Your task to perform on an android device: Search for pizza restaurants on Maps Image 0: 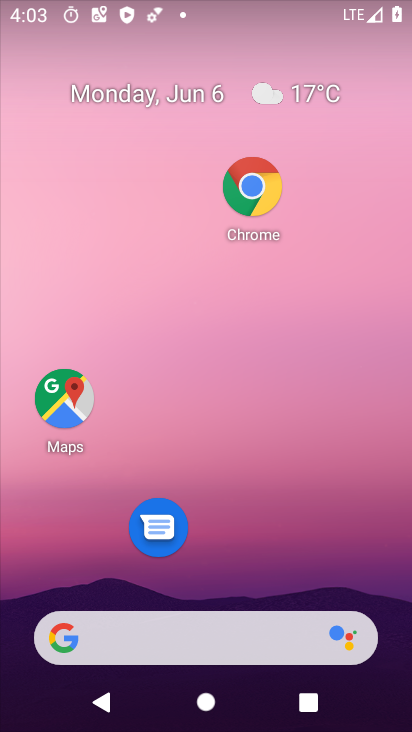
Step 0: click (62, 393)
Your task to perform on an android device: Search for pizza restaurants on Maps Image 1: 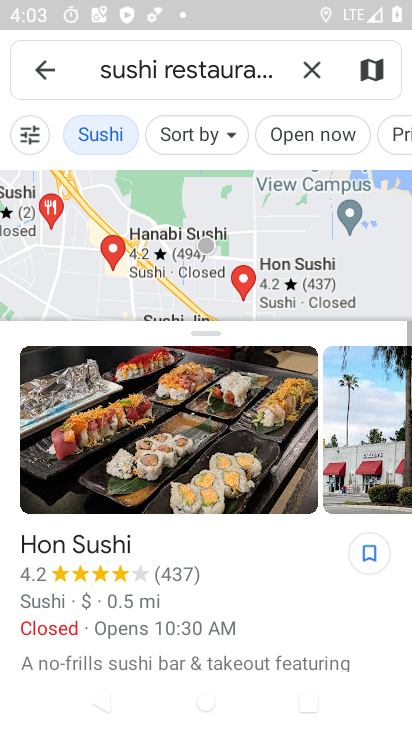
Step 1: click (213, 102)
Your task to perform on an android device: Search for pizza restaurants on Maps Image 2: 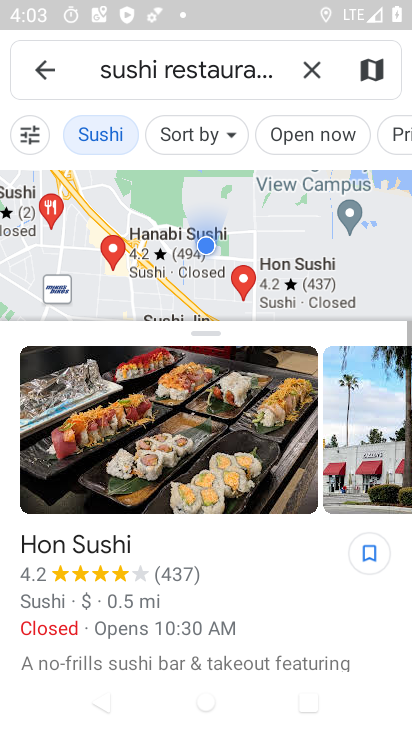
Step 2: click (206, 65)
Your task to perform on an android device: Search for pizza restaurants on Maps Image 3: 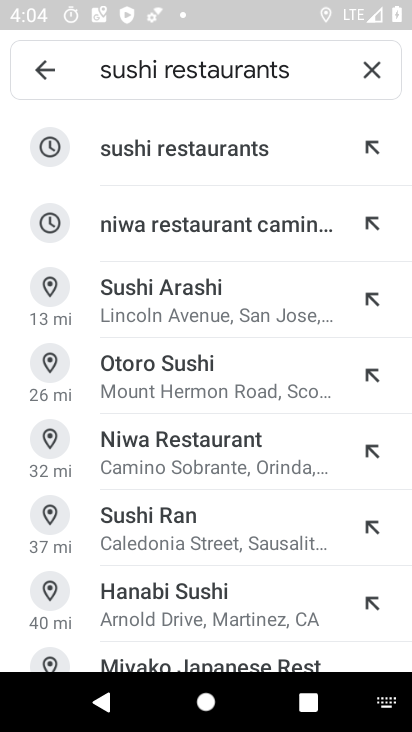
Step 3: click (376, 71)
Your task to perform on an android device: Search for pizza restaurants on Maps Image 4: 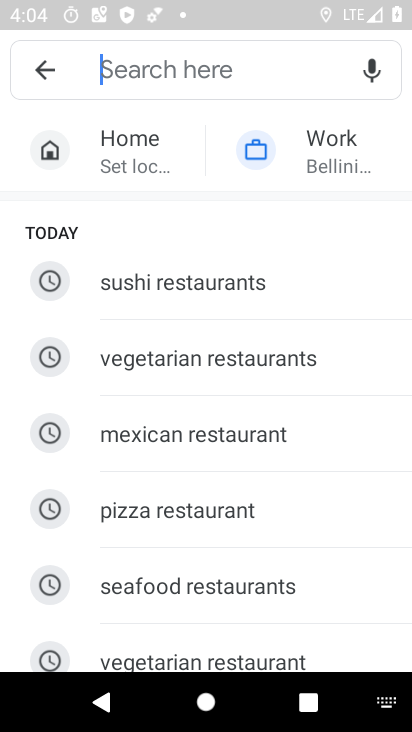
Step 4: click (190, 516)
Your task to perform on an android device: Search for pizza restaurants on Maps Image 5: 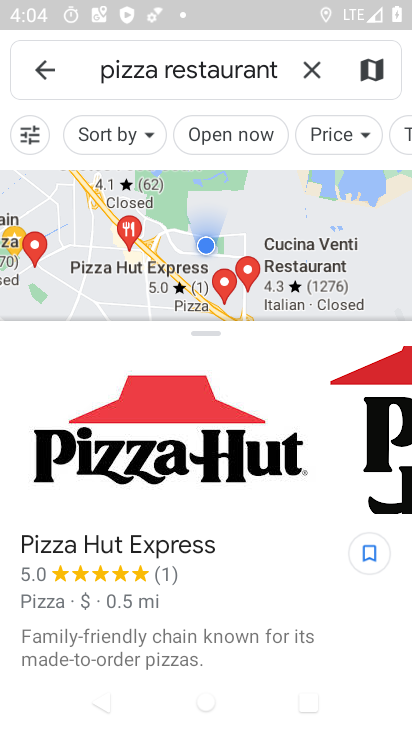
Step 5: task complete